Your task to perform on an android device: turn on data saver in the chrome app Image 0: 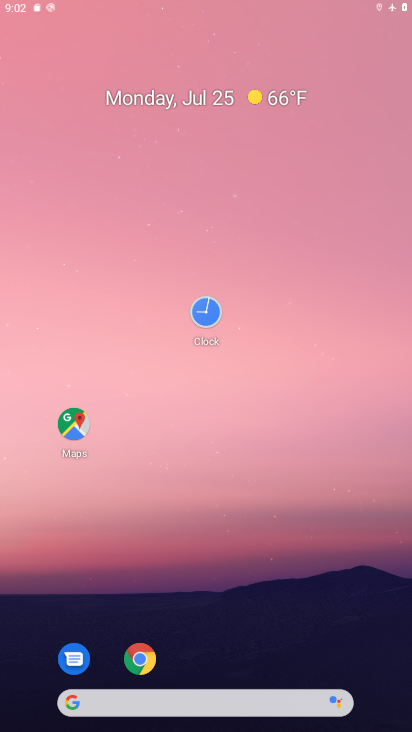
Step 0: click (242, 5)
Your task to perform on an android device: turn on data saver in the chrome app Image 1: 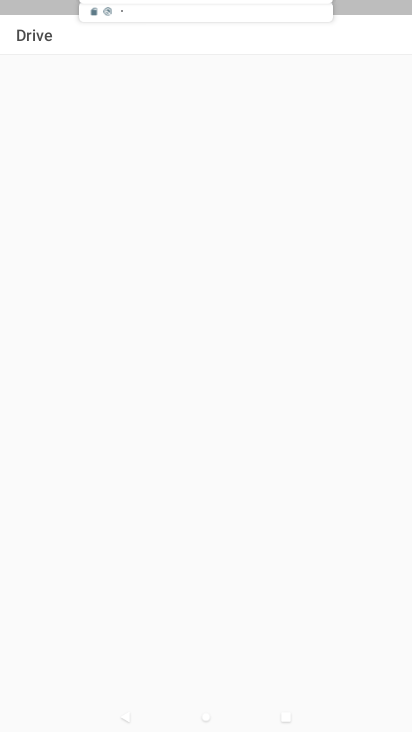
Step 1: drag from (258, 420) to (207, 18)
Your task to perform on an android device: turn on data saver in the chrome app Image 2: 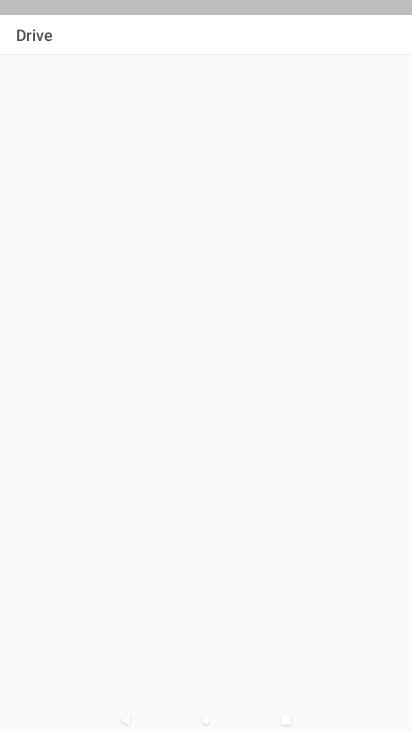
Step 2: drag from (275, 462) to (235, 25)
Your task to perform on an android device: turn on data saver in the chrome app Image 3: 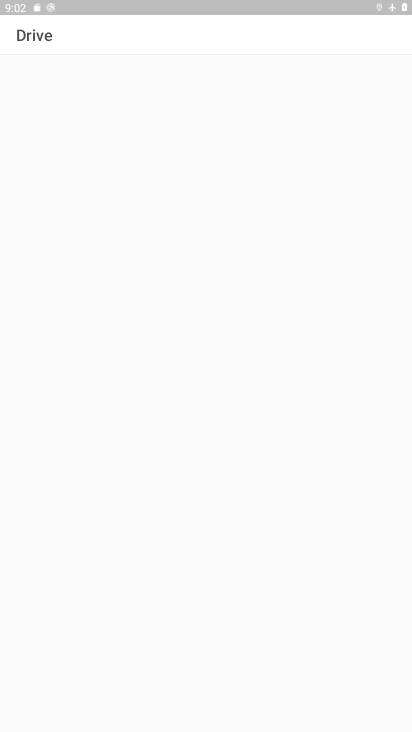
Step 3: press back button
Your task to perform on an android device: turn on data saver in the chrome app Image 4: 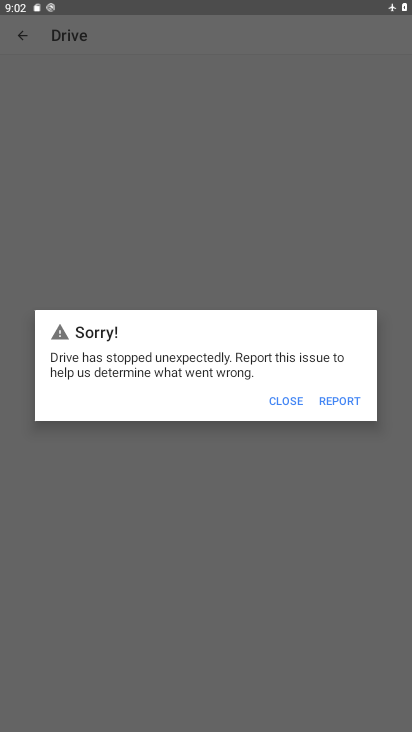
Step 4: press back button
Your task to perform on an android device: turn on data saver in the chrome app Image 5: 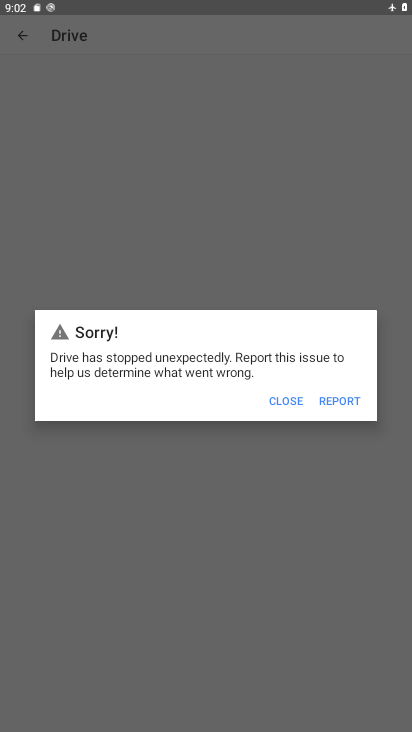
Step 5: press home button
Your task to perform on an android device: turn on data saver in the chrome app Image 6: 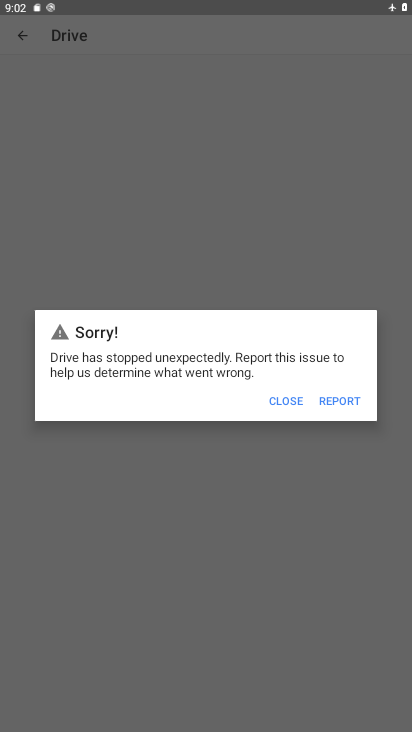
Step 6: click (165, 314)
Your task to perform on an android device: turn on data saver in the chrome app Image 7: 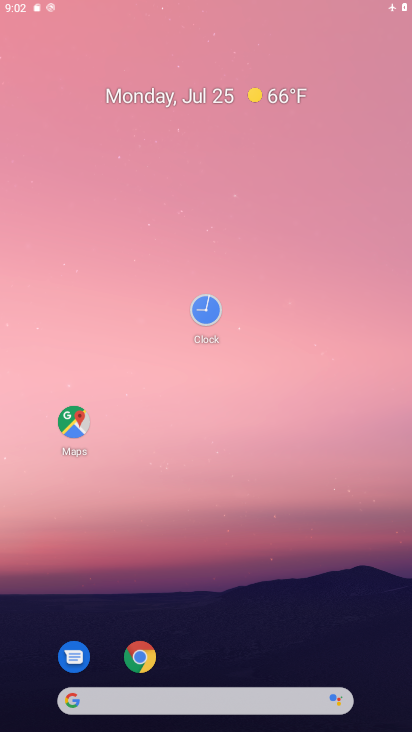
Step 7: click (290, 405)
Your task to perform on an android device: turn on data saver in the chrome app Image 8: 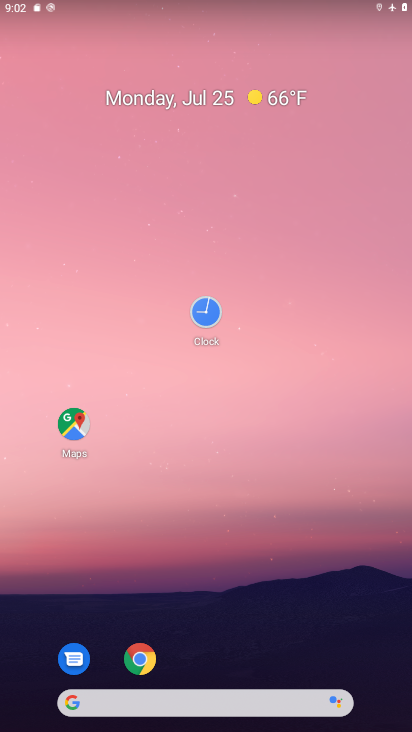
Step 8: drag from (208, 472) to (180, 193)
Your task to perform on an android device: turn on data saver in the chrome app Image 9: 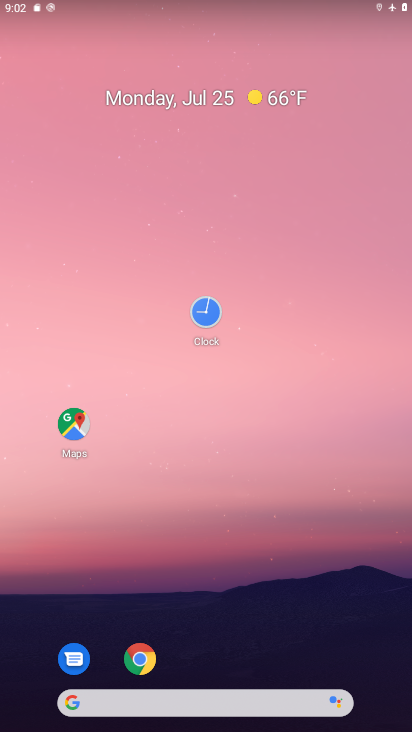
Step 9: drag from (272, 505) to (283, 24)
Your task to perform on an android device: turn on data saver in the chrome app Image 10: 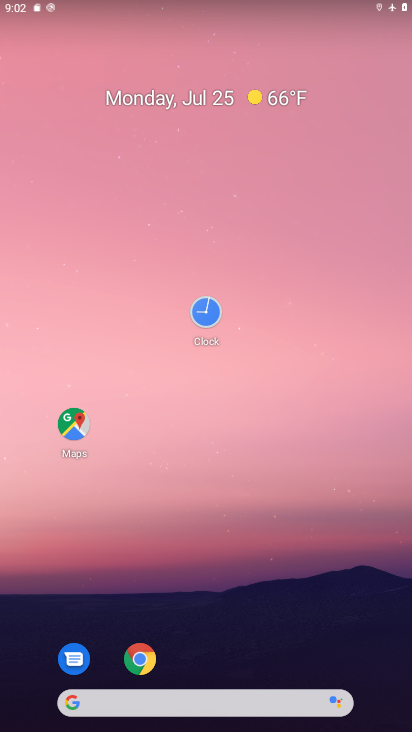
Step 10: drag from (217, 426) to (240, 38)
Your task to perform on an android device: turn on data saver in the chrome app Image 11: 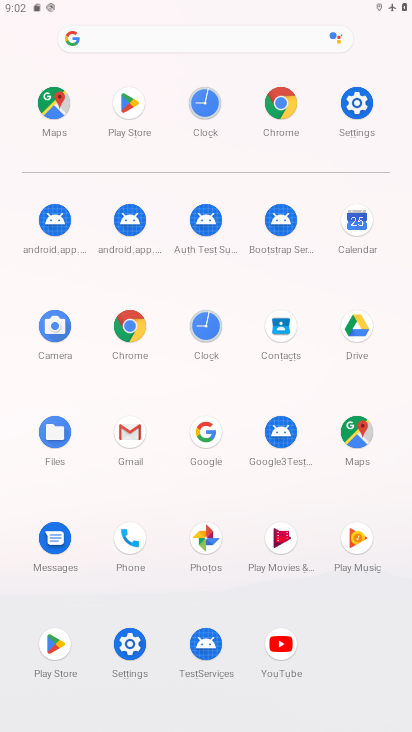
Step 11: click (133, 323)
Your task to perform on an android device: turn on data saver in the chrome app Image 12: 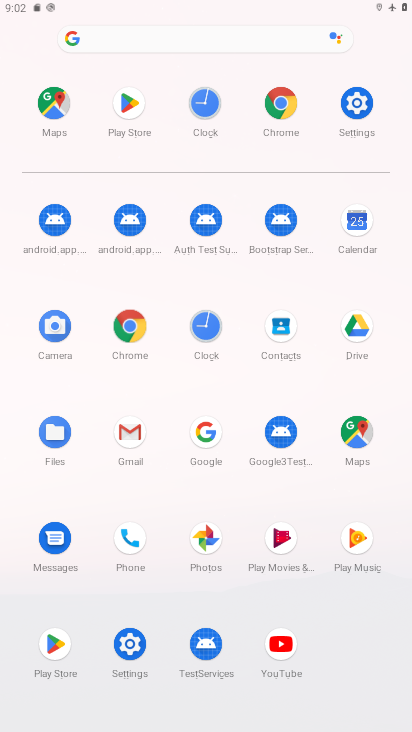
Step 12: click (136, 328)
Your task to perform on an android device: turn on data saver in the chrome app Image 13: 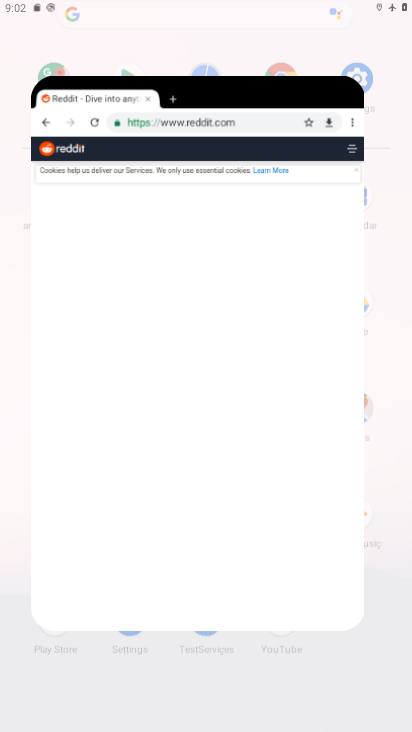
Step 13: click (140, 330)
Your task to perform on an android device: turn on data saver in the chrome app Image 14: 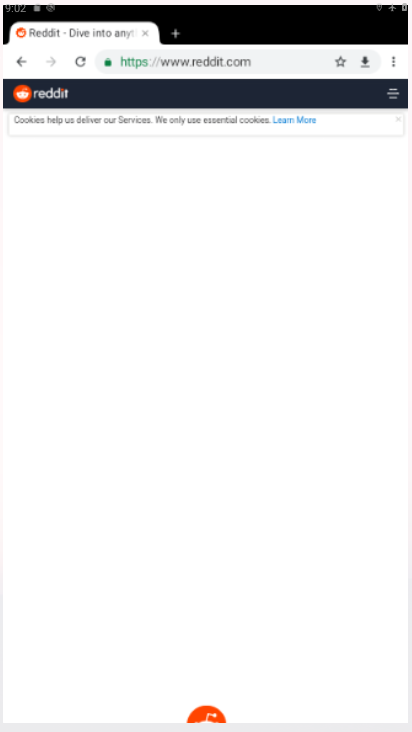
Step 14: click (145, 336)
Your task to perform on an android device: turn on data saver in the chrome app Image 15: 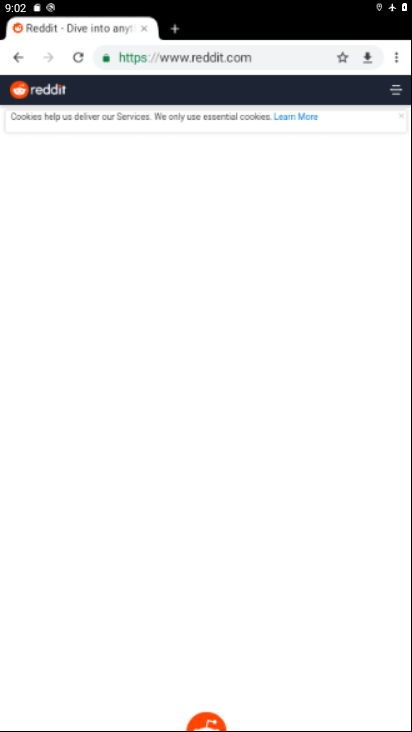
Step 15: click (148, 335)
Your task to perform on an android device: turn on data saver in the chrome app Image 16: 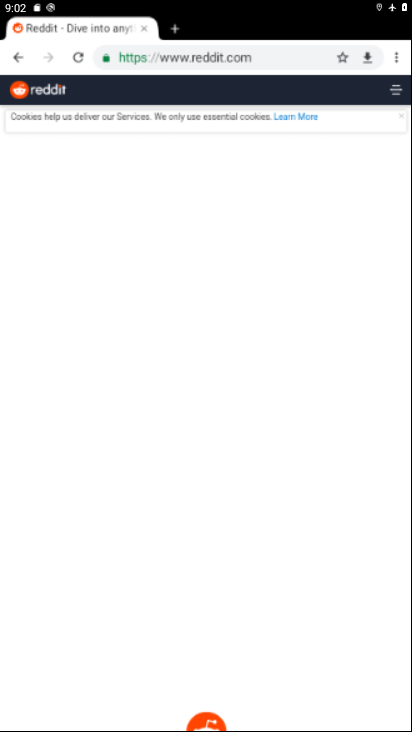
Step 16: drag from (405, 54) to (265, 360)
Your task to perform on an android device: turn on data saver in the chrome app Image 17: 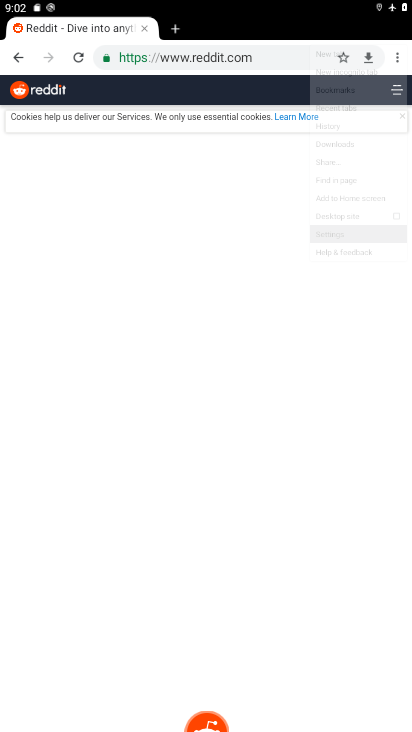
Step 17: click (293, 358)
Your task to perform on an android device: turn on data saver in the chrome app Image 18: 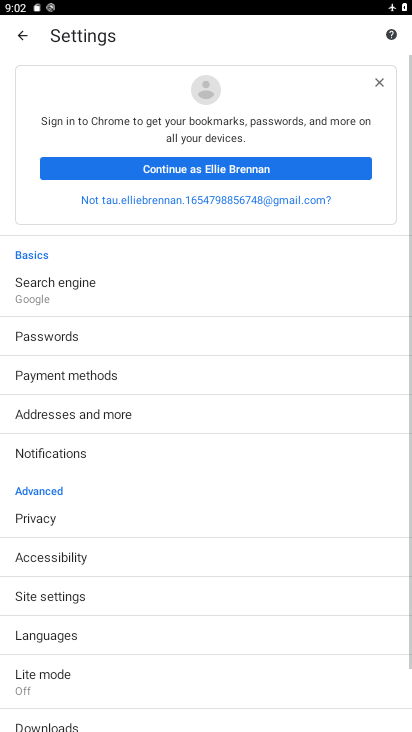
Step 18: click (51, 662)
Your task to perform on an android device: turn on data saver in the chrome app Image 19: 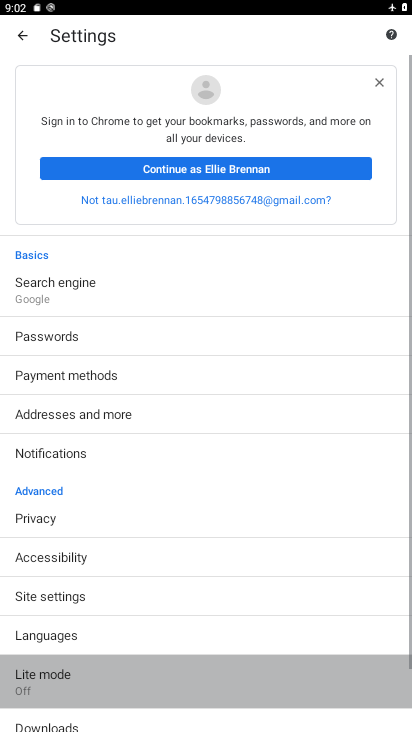
Step 19: click (46, 666)
Your task to perform on an android device: turn on data saver in the chrome app Image 20: 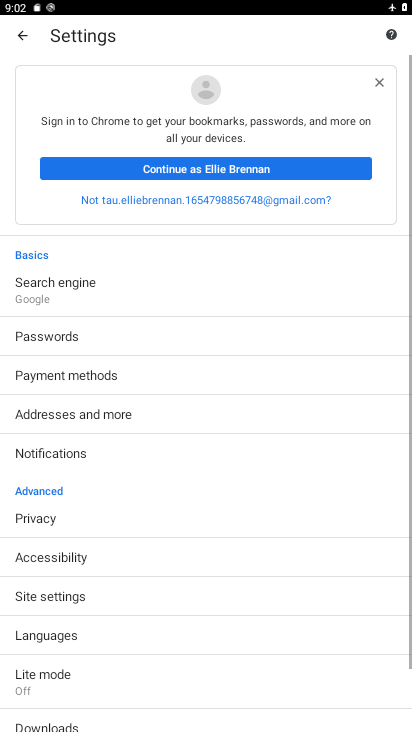
Step 20: click (51, 673)
Your task to perform on an android device: turn on data saver in the chrome app Image 21: 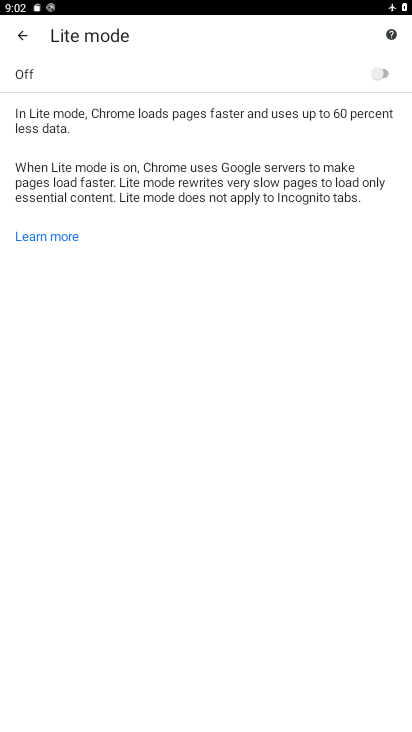
Step 21: click (378, 65)
Your task to perform on an android device: turn on data saver in the chrome app Image 22: 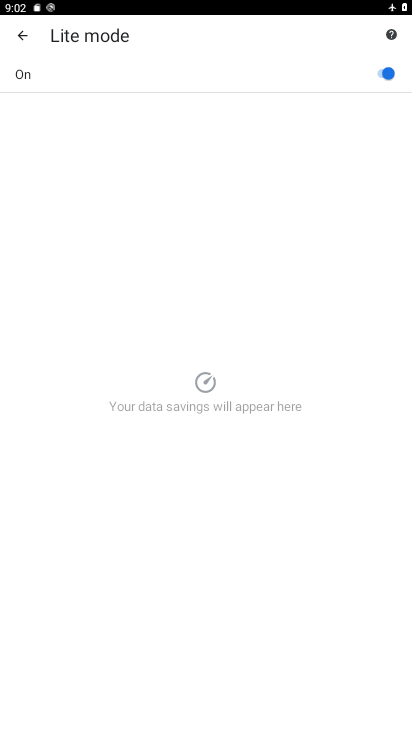
Step 22: task complete